Your task to perform on an android device: toggle notification dots Image 0: 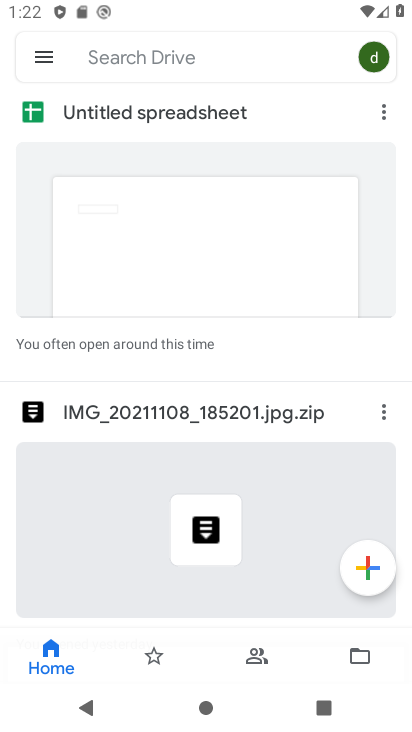
Step 0: press home button
Your task to perform on an android device: toggle notification dots Image 1: 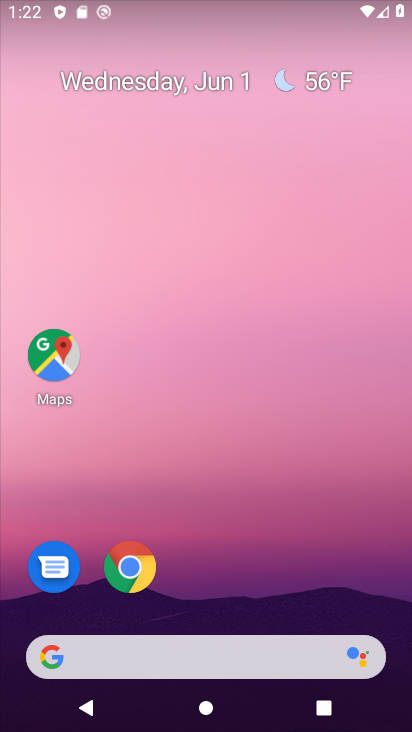
Step 1: drag from (186, 647) to (25, 99)
Your task to perform on an android device: toggle notification dots Image 2: 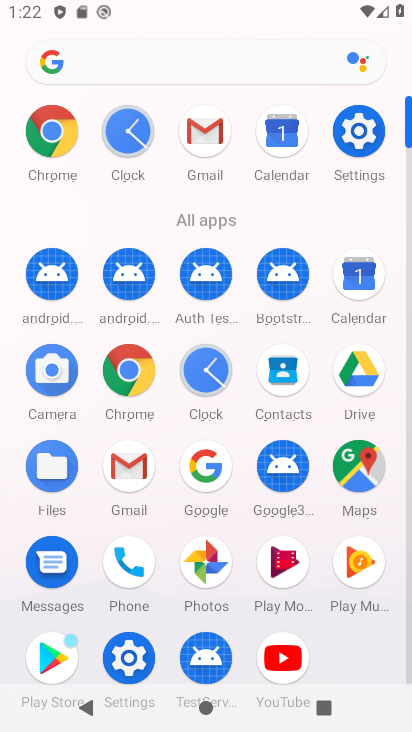
Step 2: click (357, 144)
Your task to perform on an android device: toggle notification dots Image 3: 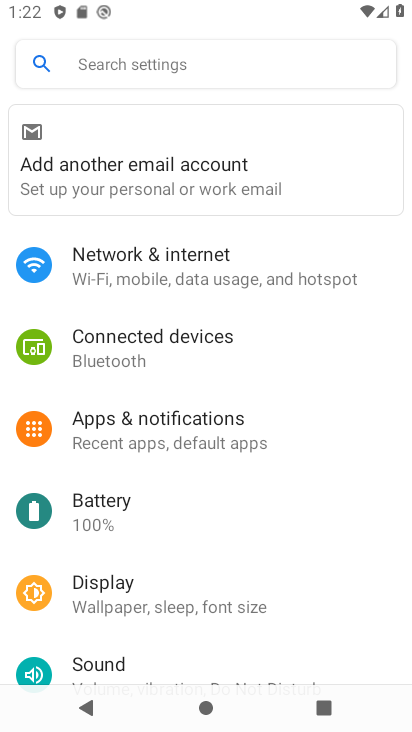
Step 3: click (169, 424)
Your task to perform on an android device: toggle notification dots Image 4: 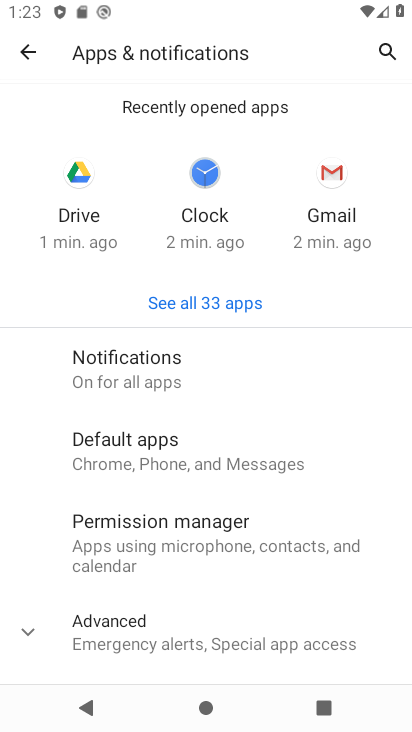
Step 4: drag from (189, 596) to (155, 232)
Your task to perform on an android device: toggle notification dots Image 5: 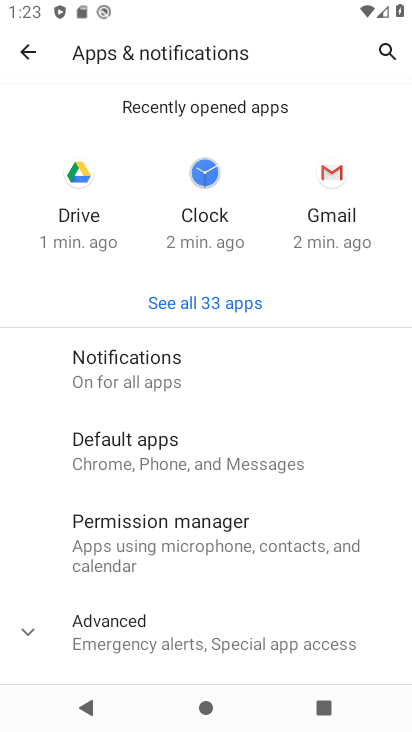
Step 5: click (143, 346)
Your task to perform on an android device: toggle notification dots Image 6: 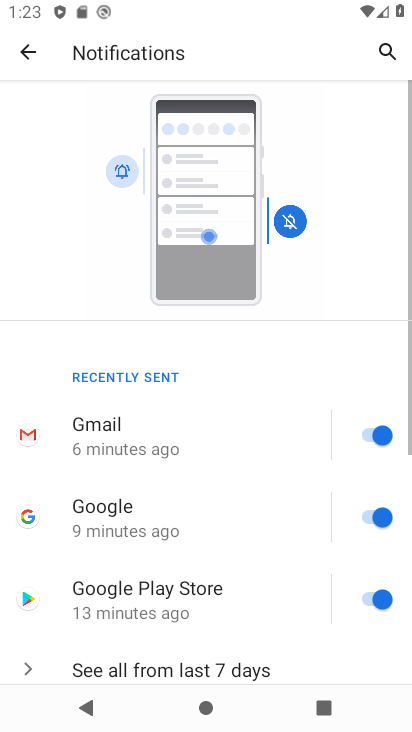
Step 6: drag from (232, 478) to (143, 17)
Your task to perform on an android device: toggle notification dots Image 7: 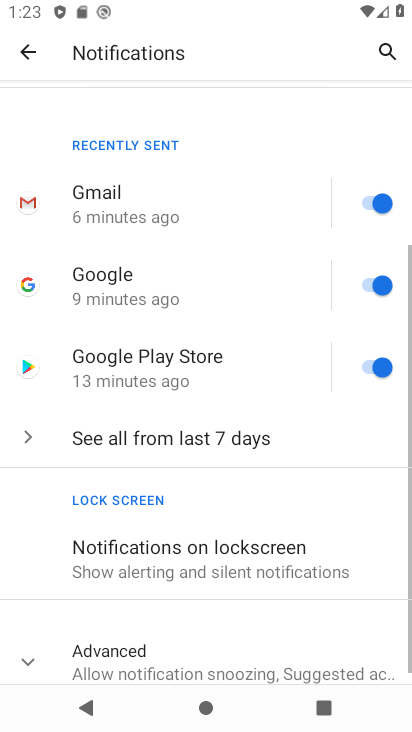
Step 7: drag from (201, 561) to (173, 104)
Your task to perform on an android device: toggle notification dots Image 8: 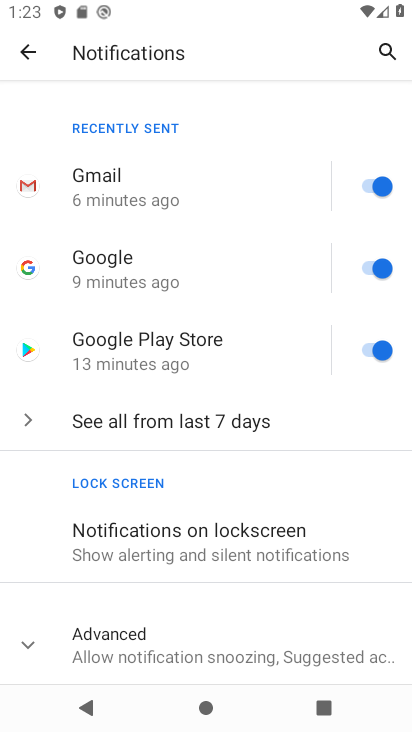
Step 8: click (155, 624)
Your task to perform on an android device: toggle notification dots Image 9: 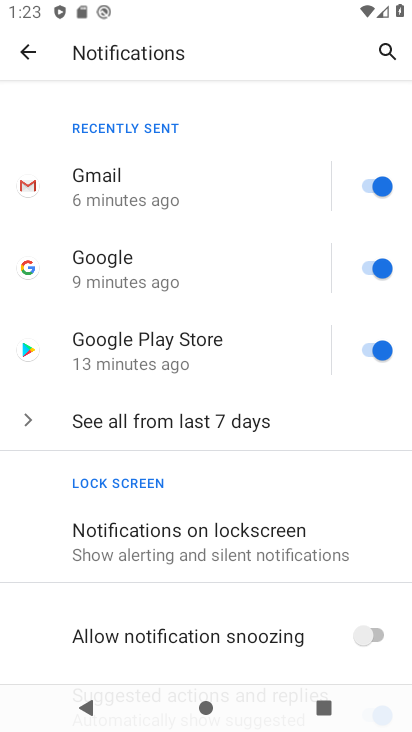
Step 9: drag from (228, 596) to (166, 2)
Your task to perform on an android device: toggle notification dots Image 10: 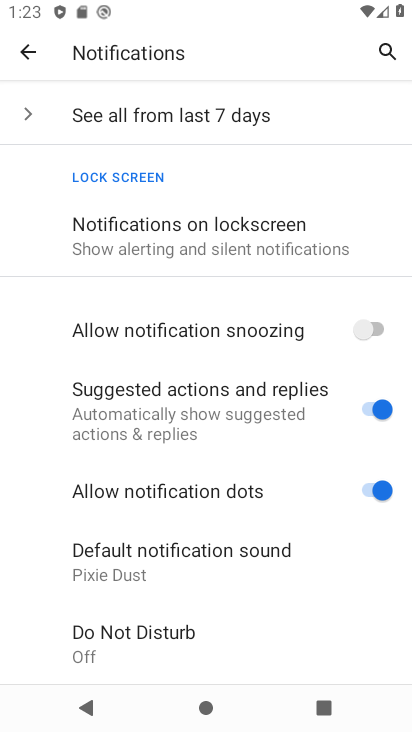
Step 10: click (384, 488)
Your task to perform on an android device: toggle notification dots Image 11: 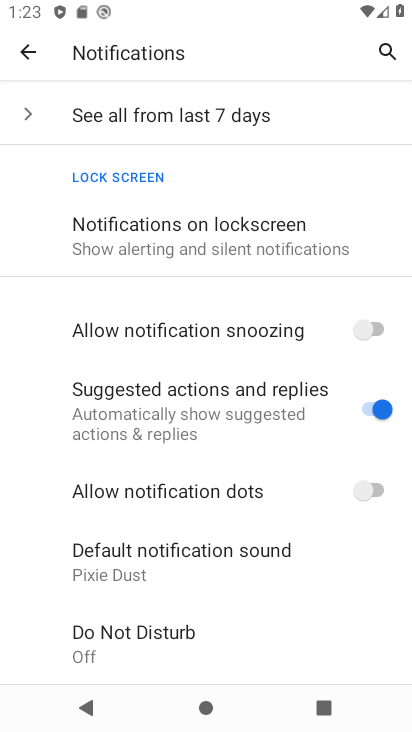
Step 11: task complete